Your task to perform on an android device: Turn off the flashlight Image 0: 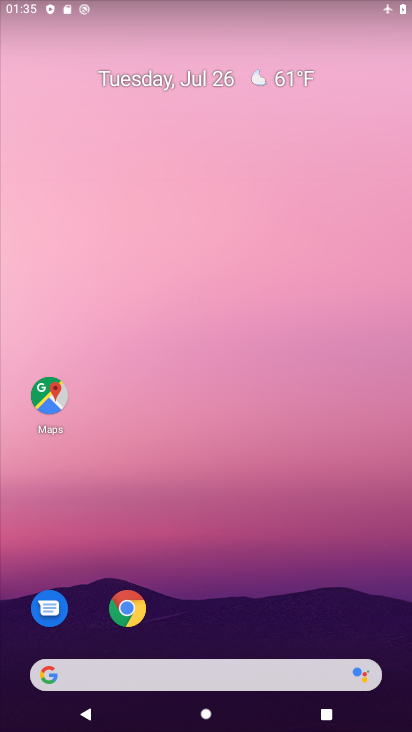
Step 0: drag from (80, 534) to (278, 83)
Your task to perform on an android device: Turn off the flashlight Image 1: 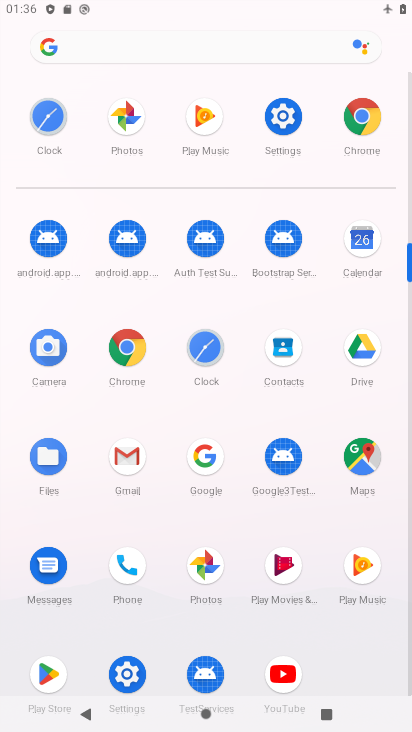
Step 1: click (289, 108)
Your task to perform on an android device: Turn off the flashlight Image 2: 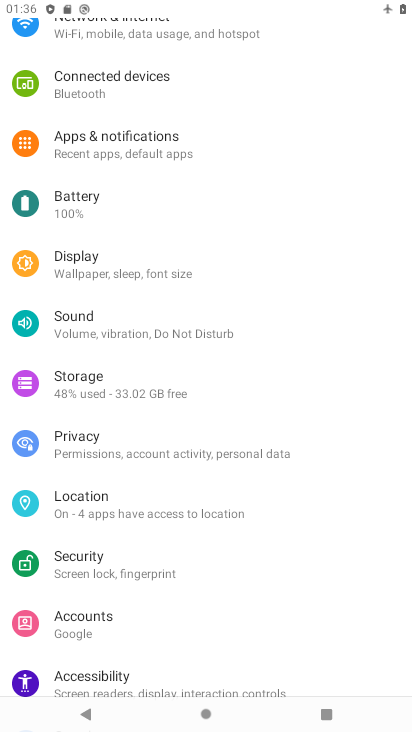
Step 2: task complete